Your task to perform on an android device: turn on sleep mode Image 0: 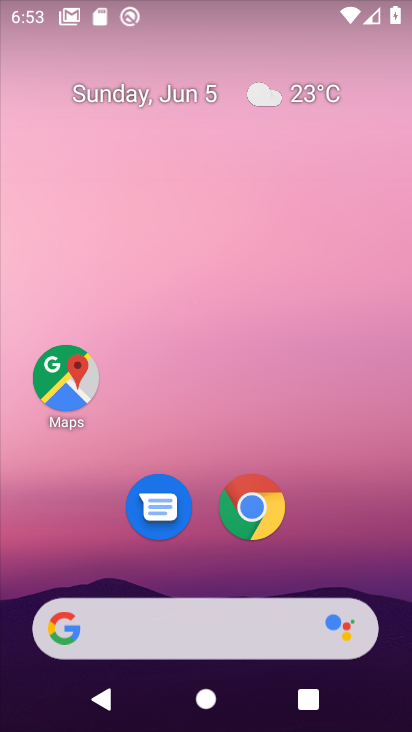
Step 0: drag from (292, 660) to (243, 142)
Your task to perform on an android device: turn on sleep mode Image 1: 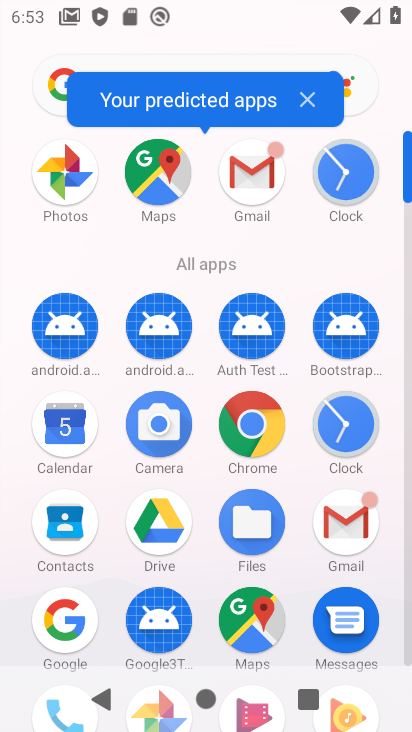
Step 1: drag from (211, 554) to (230, 267)
Your task to perform on an android device: turn on sleep mode Image 2: 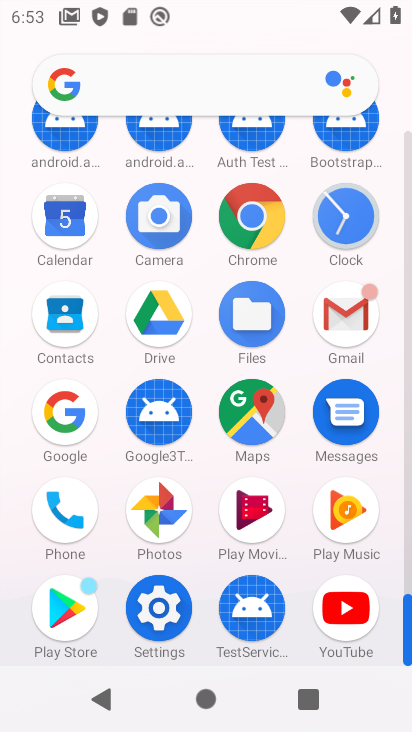
Step 2: click (164, 592)
Your task to perform on an android device: turn on sleep mode Image 3: 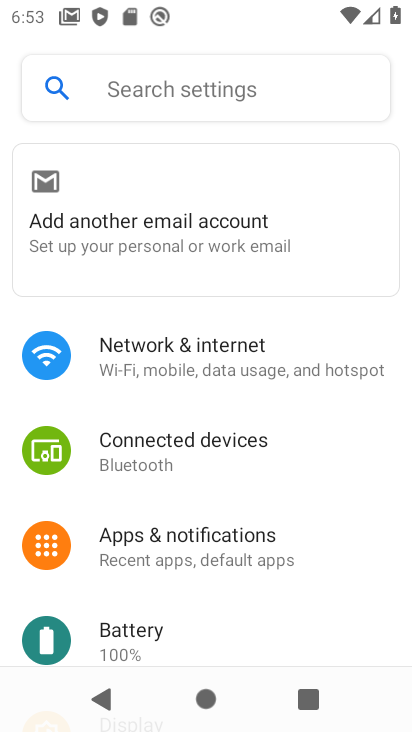
Step 3: click (129, 98)
Your task to perform on an android device: turn on sleep mode Image 4: 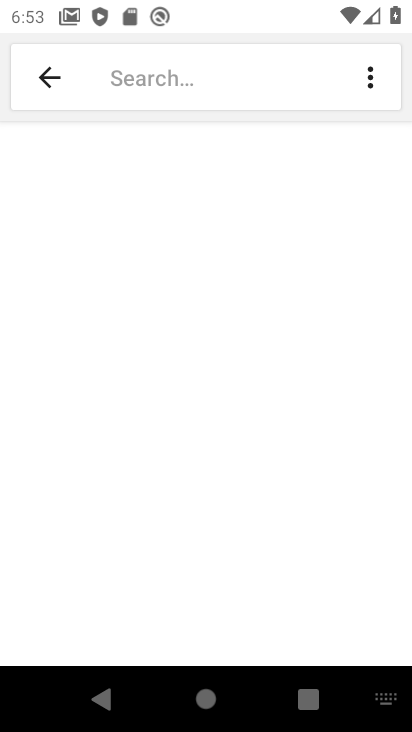
Step 4: drag from (379, 694) to (377, 544)
Your task to perform on an android device: turn on sleep mode Image 5: 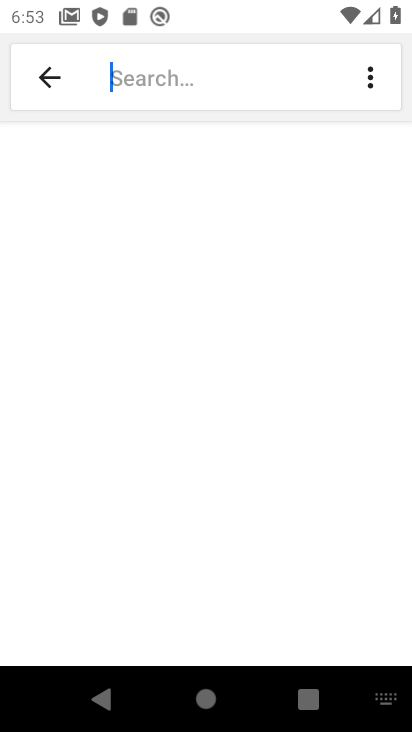
Step 5: click (389, 700)
Your task to perform on an android device: turn on sleep mode Image 6: 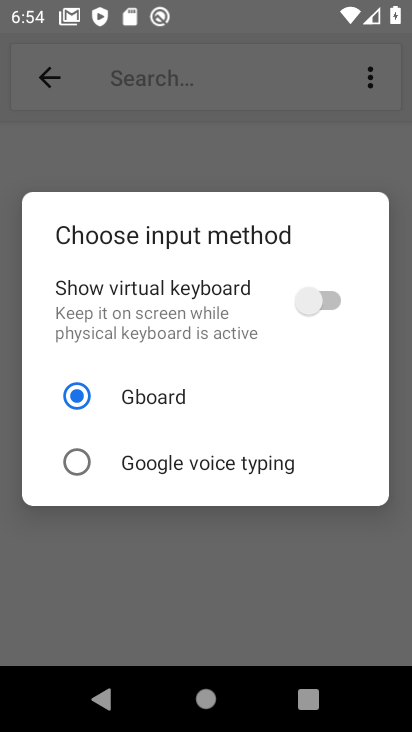
Step 6: click (315, 299)
Your task to perform on an android device: turn on sleep mode Image 7: 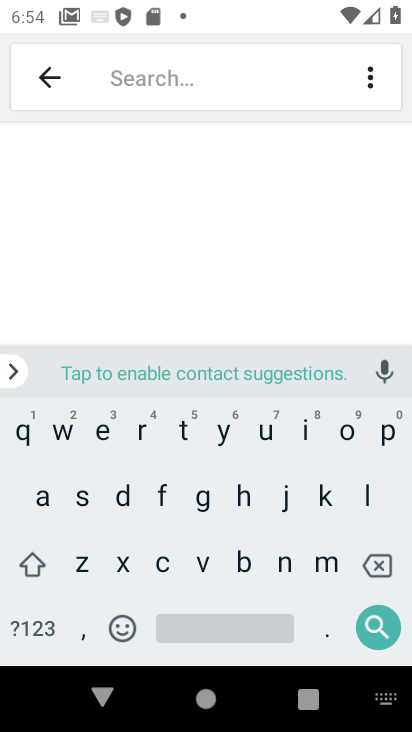
Step 7: click (80, 501)
Your task to perform on an android device: turn on sleep mode Image 8: 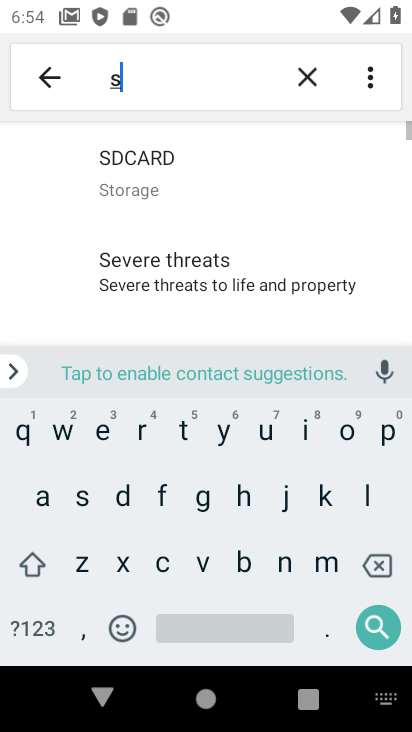
Step 8: click (371, 490)
Your task to perform on an android device: turn on sleep mode Image 9: 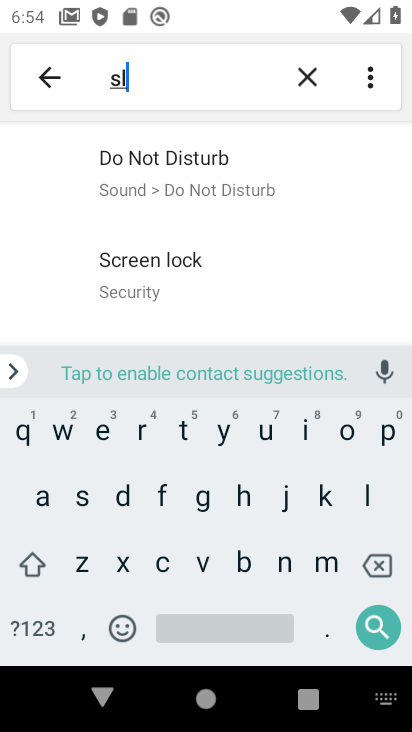
Step 9: click (156, 190)
Your task to perform on an android device: turn on sleep mode Image 10: 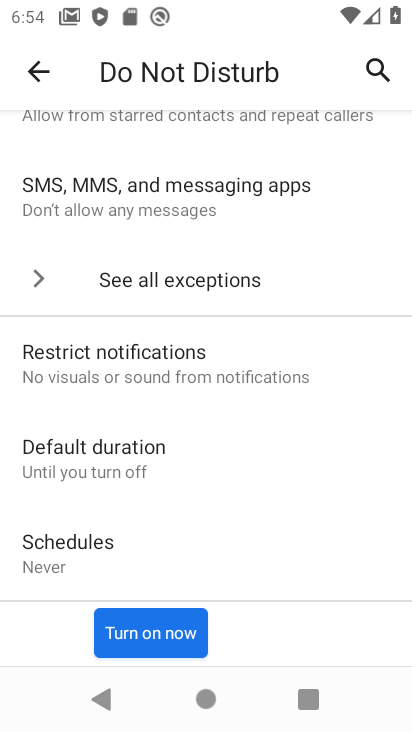
Step 10: task complete